Your task to perform on an android device: Do I have any events tomorrow? Image 0: 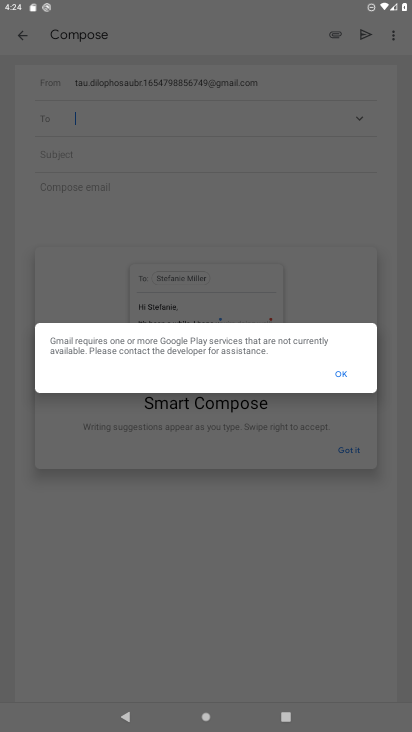
Step 0: press home button
Your task to perform on an android device: Do I have any events tomorrow? Image 1: 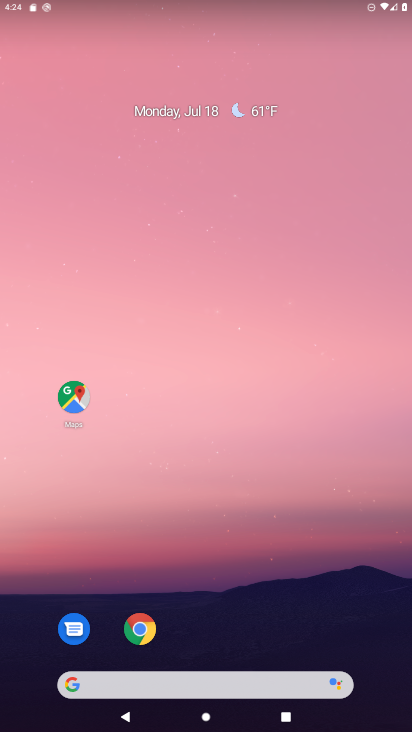
Step 1: drag from (188, 677) to (241, 170)
Your task to perform on an android device: Do I have any events tomorrow? Image 2: 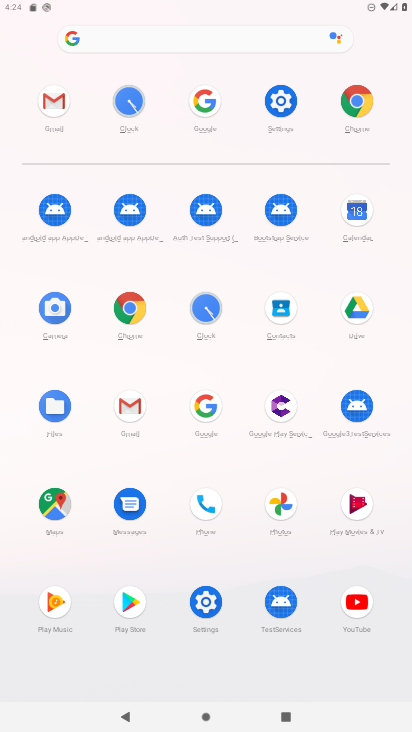
Step 2: click (356, 219)
Your task to perform on an android device: Do I have any events tomorrow? Image 3: 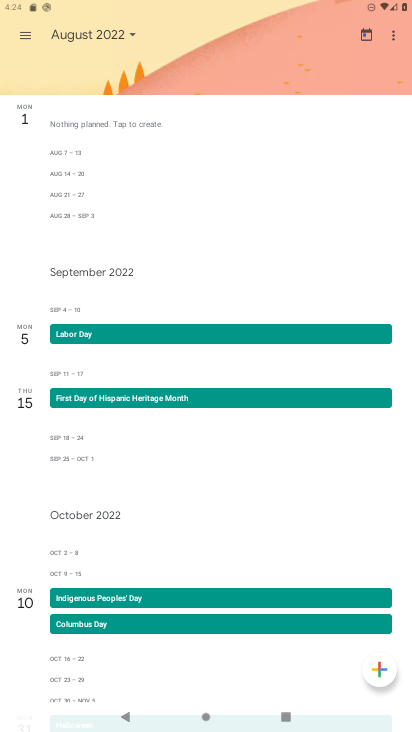
Step 3: click (113, 38)
Your task to perform on an android device: Do I have any events tomorrow? Image 4: 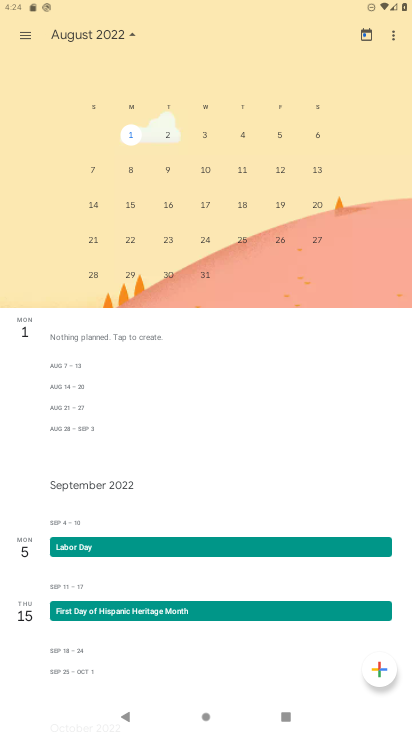
Step 4: drag from (71, 167) to (411, 228)
Your task to perform on an android device: Do I have any events tomorrow? Image 5: 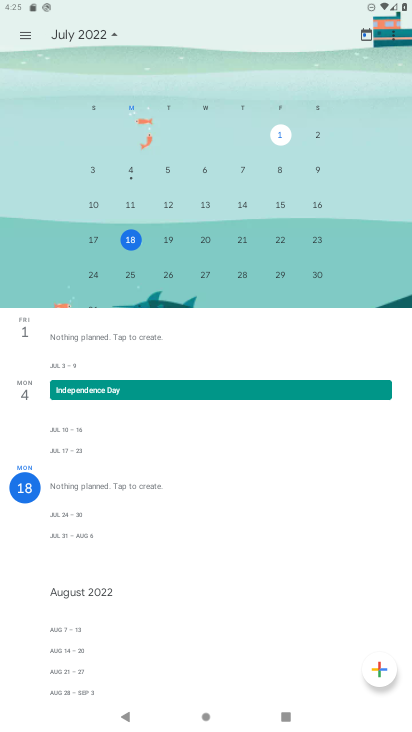
Step 5: click (172, 240)
Your task to perform on an android device: Do I have any events tomorrow? Image 6: 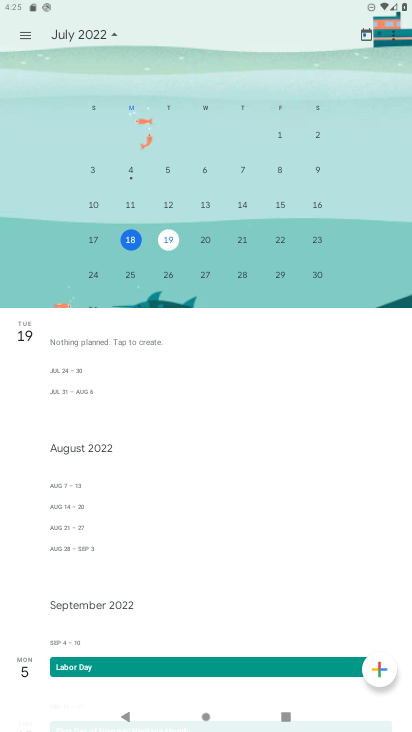
Step 6: task complete